Your task to perform on an android device: What's on my calendar tomorrow? Image 0: 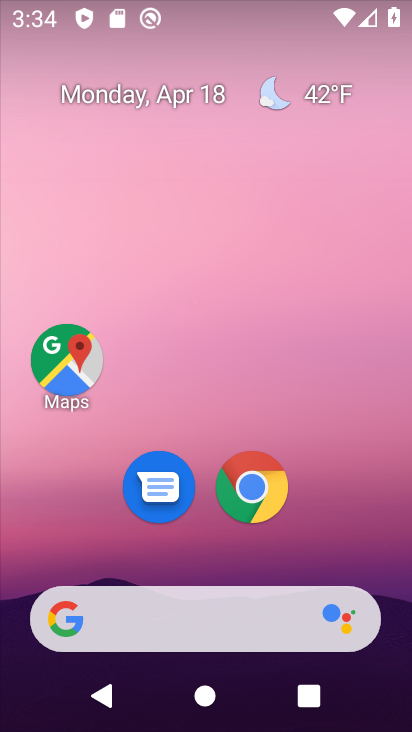
Step 0: drag from (212, 534) to (178, 63)
Your task to perform on an android device: What's on my calendar tomorrow? Image 1: 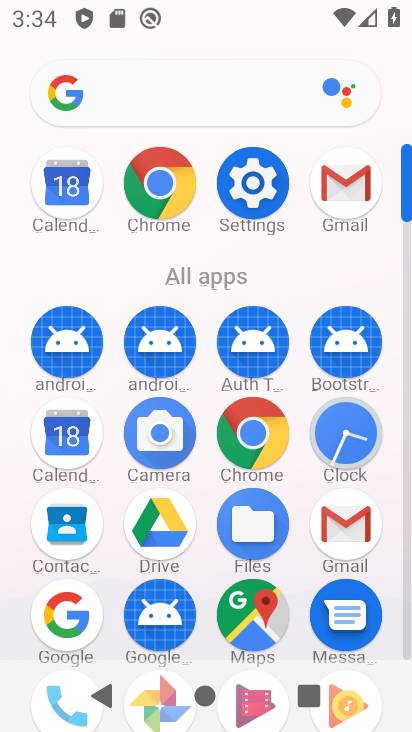
Step 1: click (64, 203)
Your task to perform on an android device: What's on my calendar tomorrow? Image 2: 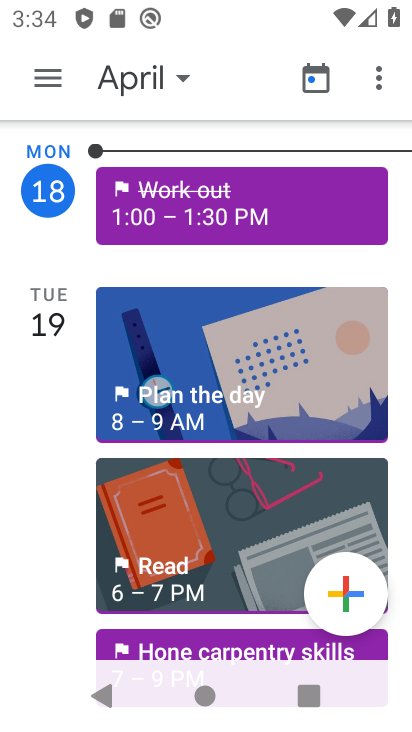
Step 2: click (46, 325)
Your task to perform on an android device: What's on my calendar tomorrow? Image 3: 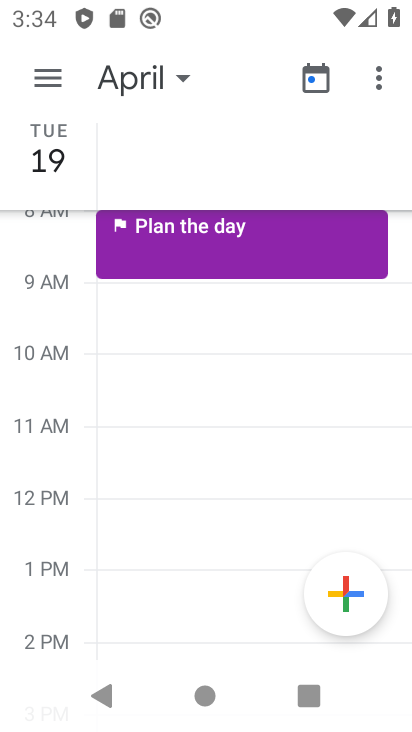
Step 3: task complete